Your task to perform on an android device: empty trash in the gmail app Image 0: 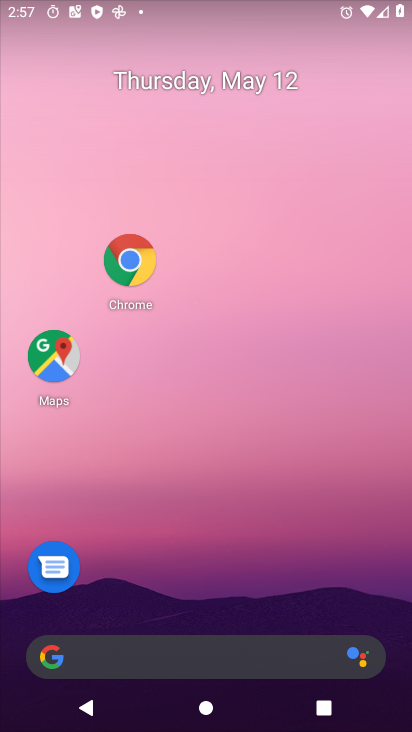
Step 0: drag from (222, 641) to (328, 240)
Your task to perform on an android device: empty trash in the gmail app Image 1: 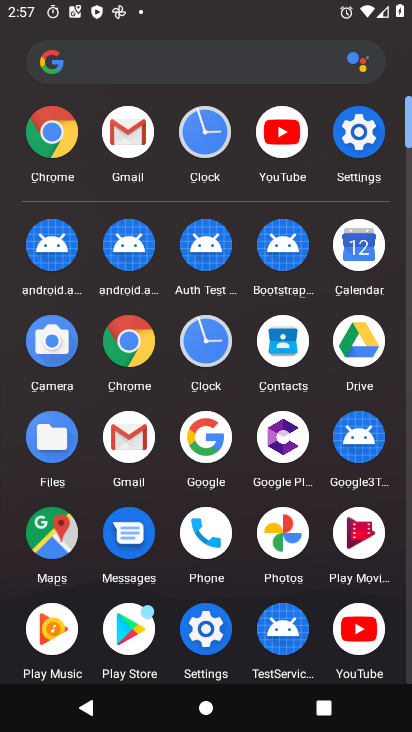
Step 1: click (136, 441)
Your task to perform on an android device: empty trash in the gmail app Image 2: 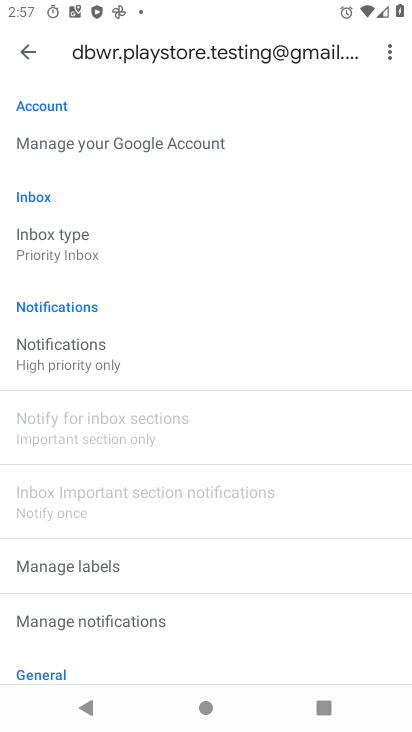
Step 2: press home button
Your task to perform on an android device: empty trash in the gmail app Image 3: 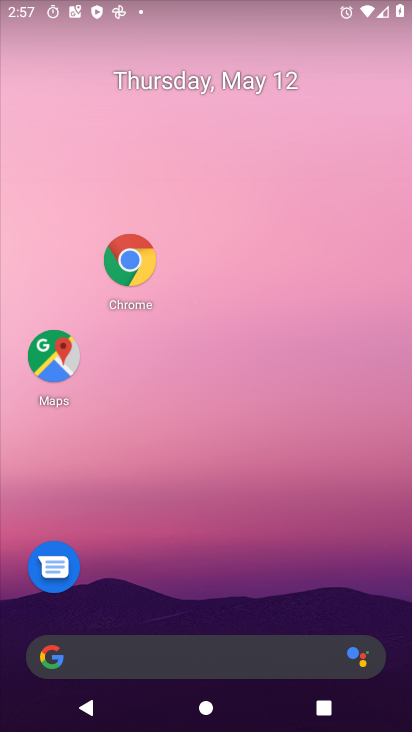
Step 3: drag from (205, 618) to (285, 249)
Your task to perform on an android device: empty trash in the gmail app Image 4: 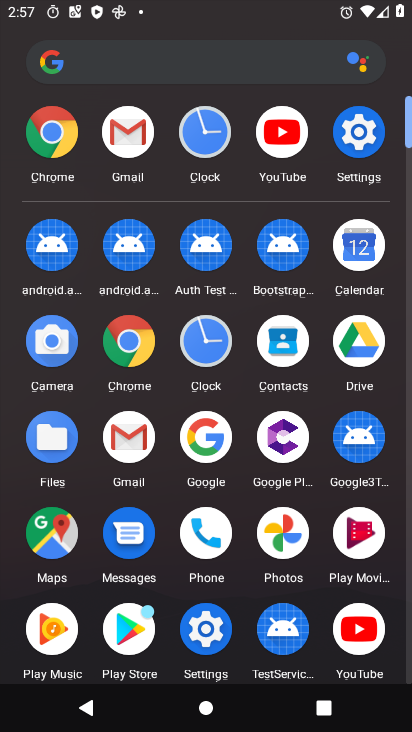
Step 4: click (125, 434)
Your task to perform on an android device: empty trash in the gmail app Image 5: 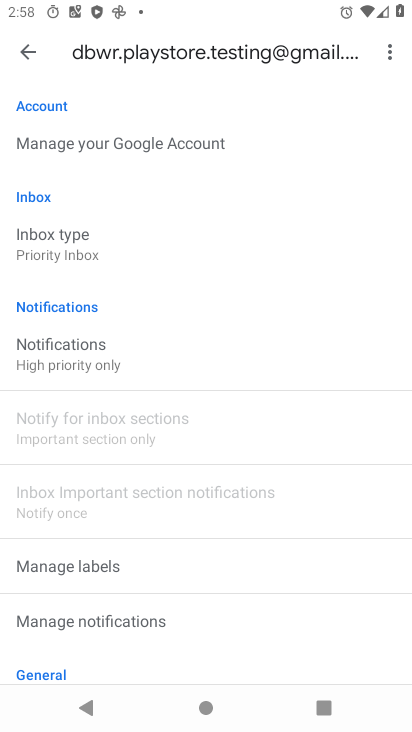
Step 5: click (26, 62)
Your task to perform on an android device: empty trash in the gmail app Image 6: 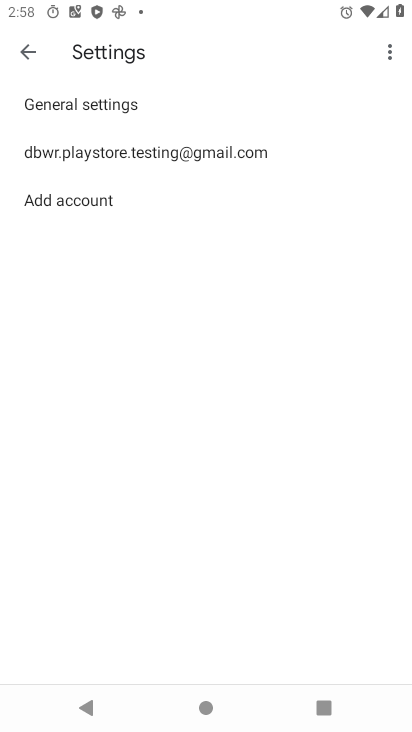
Step 6: click (26, 62)
Your task to perform on an android device: empty trash in the gmail app Image 7: 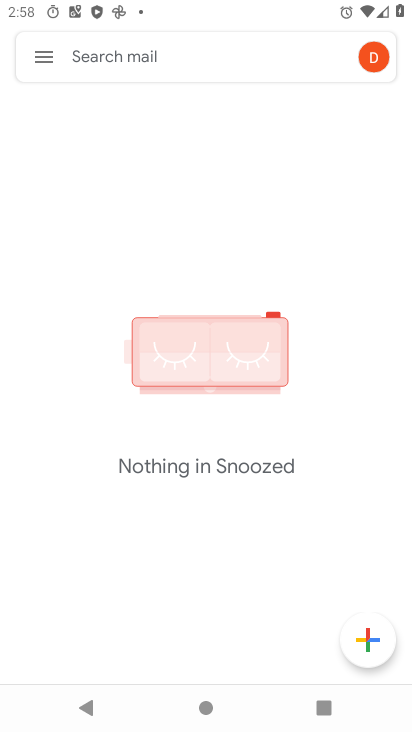
Step 7: click (40, 55)
Your task to perform on an android device: empty trash in the gmail app Image 8: 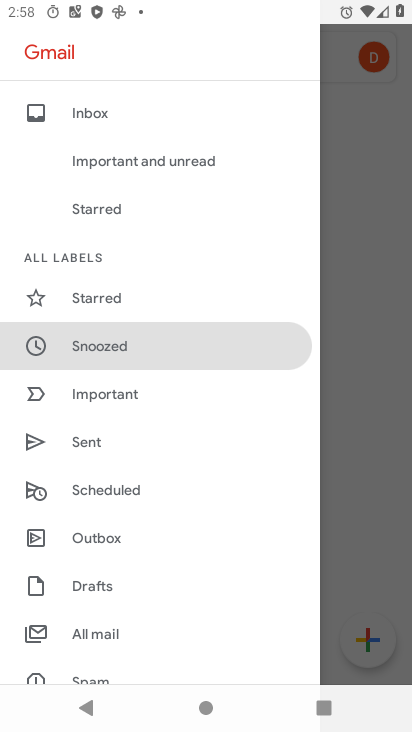
Step 8: drag from (118, 614) to (130, 325)
Your task to perform on an android device: empty trash in the gmail app Image 9: 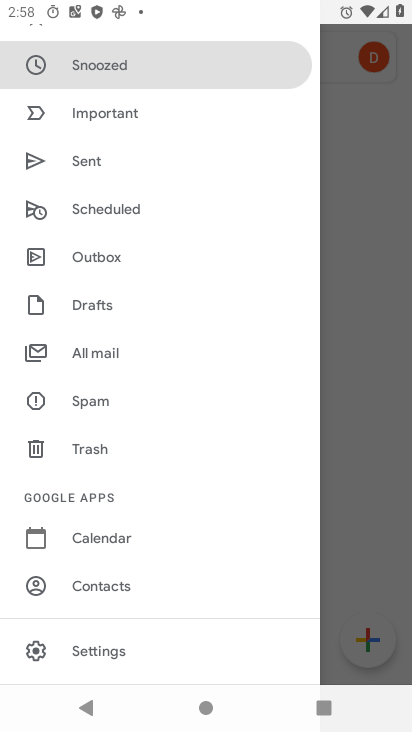
Step 9: click (101, 442)
Your task to perform on an android device: empty trash in the gmail app Image 10: 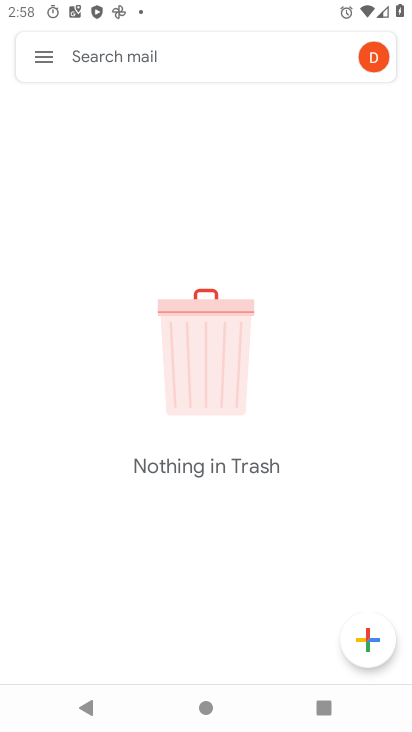
Step 10: task complete